Your task to perform on an android device: add a contact Image 0: 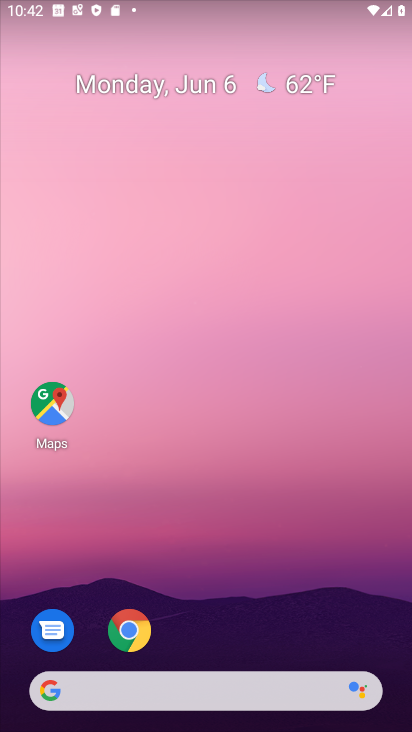
Step 0: press home button
Your task to perform on an android device: add a contact Image 1: 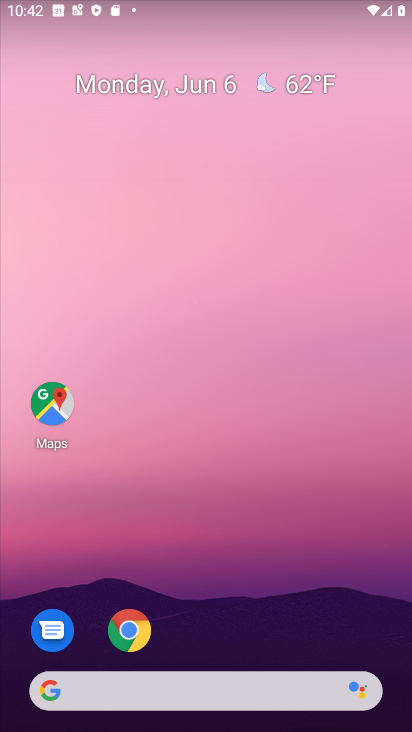
Step 1: drag from (381, 610) to (379, 109)
Your task to perform on an android device: add a contact Image 2: 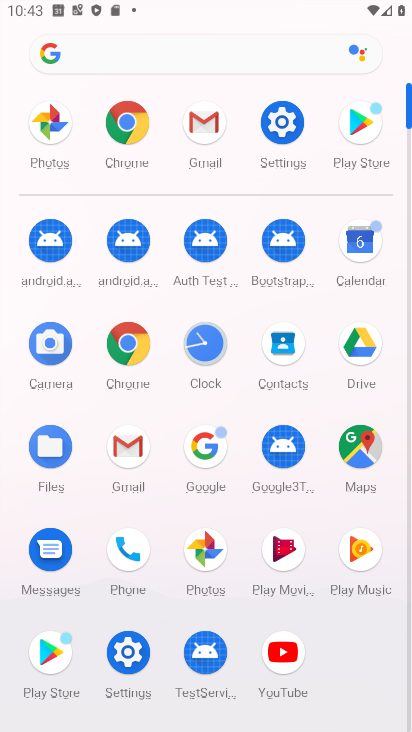
Step 2: click (299, 341)
Your task to perform on an android device: add a contact Image 3: 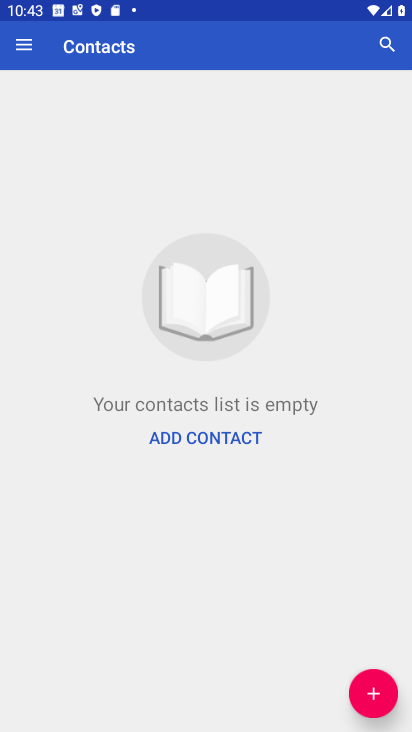
Step 3: click (373, 704)
Your task to perform on an android device: add a contact Image 4: 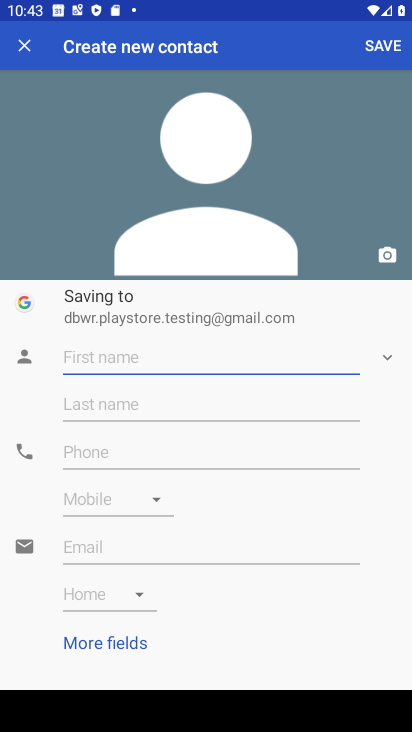
Step 4: type "weind"
Your task to perform on an android device: add a contact Image 5: 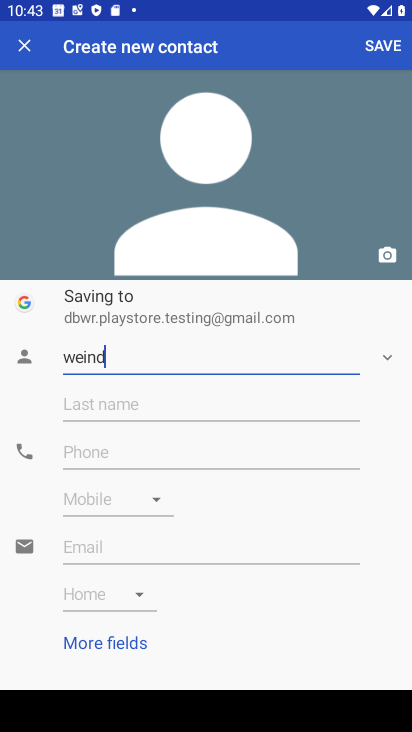
Step 5: click (120, 454)
Your task to perform on an android device: add a contact Image 6: 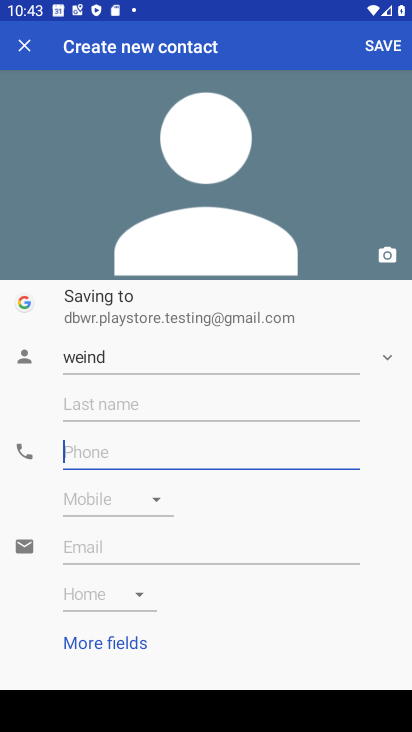
Step 6: type "4958588540498"
Your task to perform on an android device: add a contact Image 7: 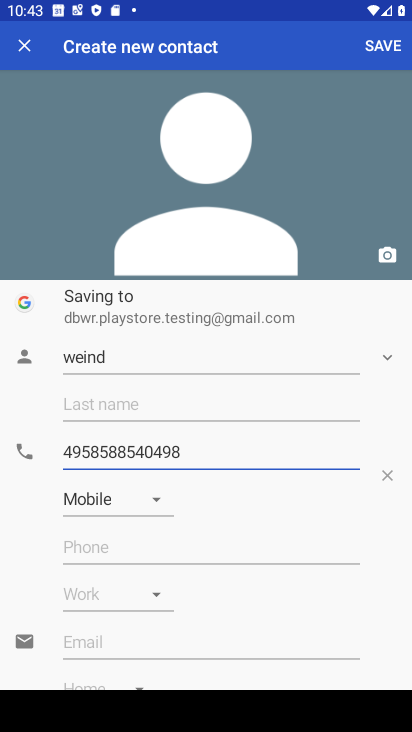
Step 7: click (390, 51)
Your task to perform on an android device: add a contact Image 8: 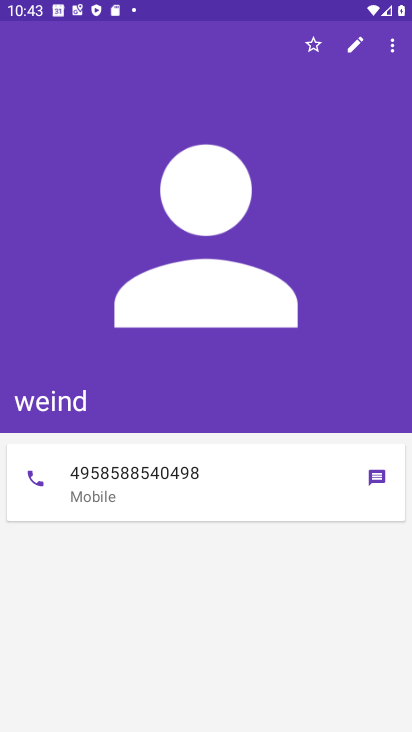
Step 8: task complete